Your task to perform on an android device: change the clock style Image 0: 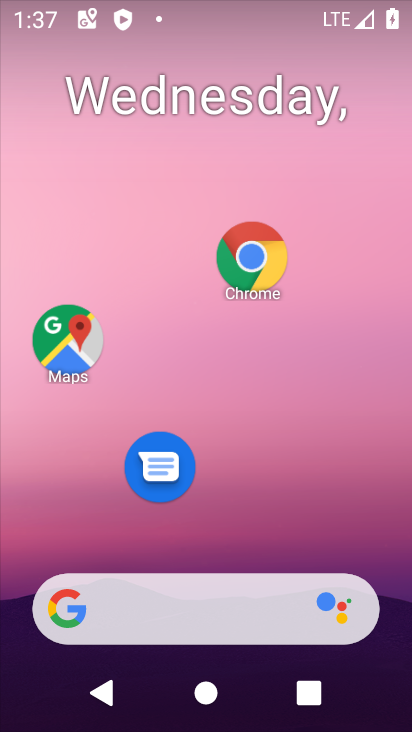
Step 0: drag from (246, 529) to (282, 89)
Your task to perform on an android device: change the clock style Image 1: 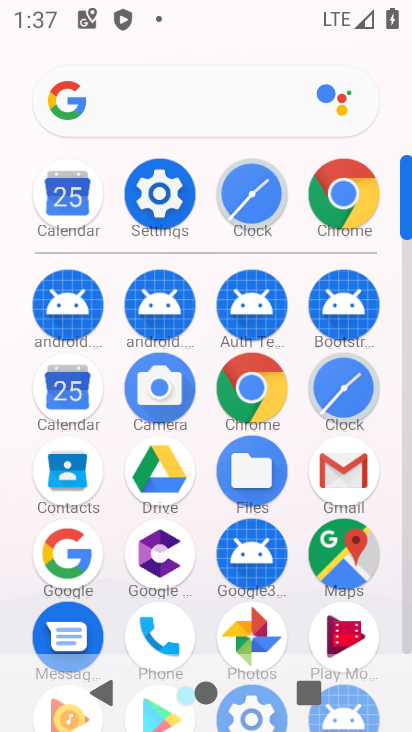
Step 1: click (245, 192)
Your task to perform on an android device: change the clock style Image 2: 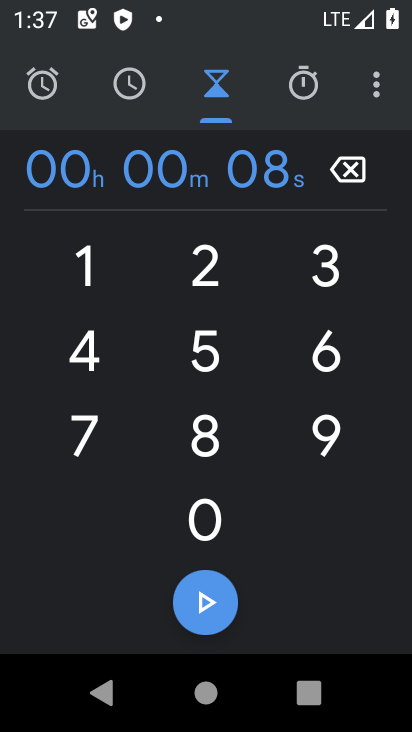
Step 2: click (379, 92)
Your task to perform on an android device: change the clock style Image 3: 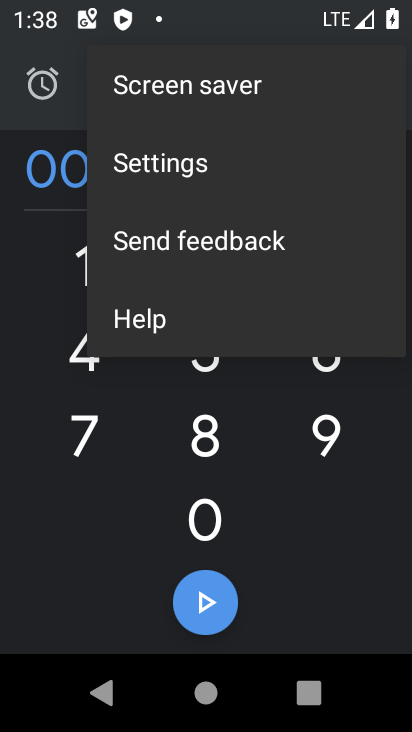
Step 3: click (182, 158)
Your task to perform on an android device: change the clock style Image 4: 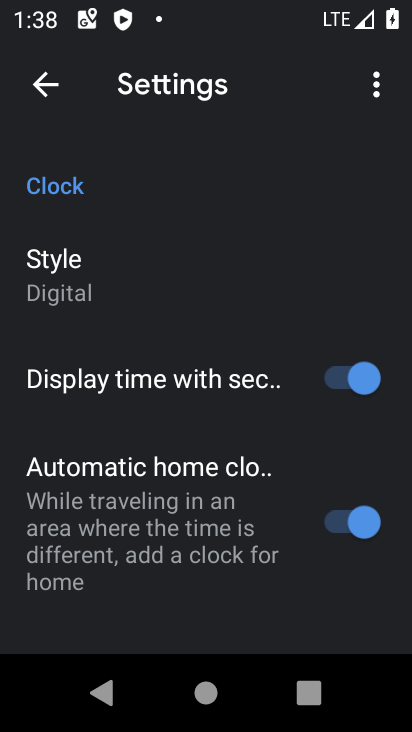
Step 4: click (72, 263)
Your task to perform on an android device: change the clock style Image 5: 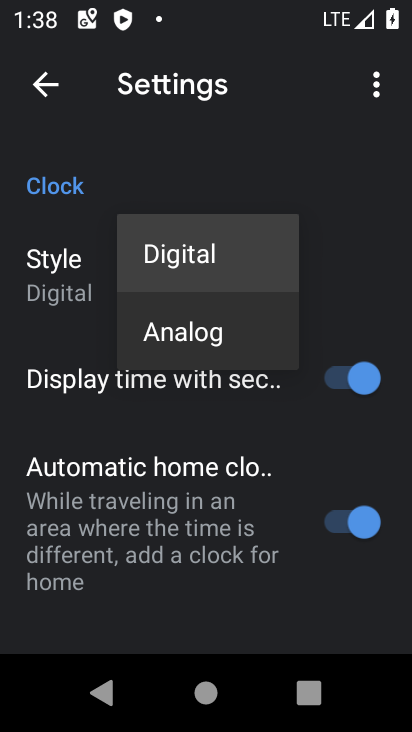
Step 5: click (239, 333)
Your task to perform on an android device: change the clock style Image 6: 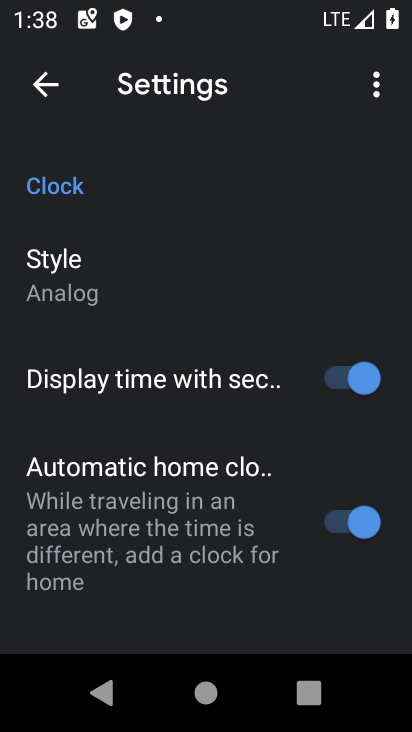
Step 6: task complete